Your task to perform on an android device: Open Chrome and go to the settings page Image 0: 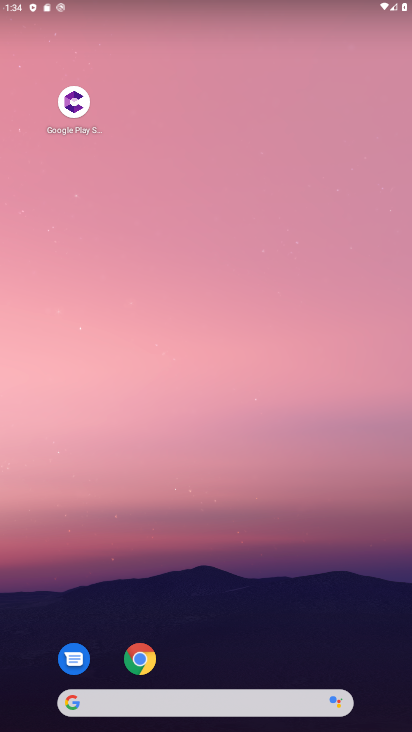
Step 0: click (138, 652)
Your task to perform on an android device: Open Chrome and go to the settings page Image 1: 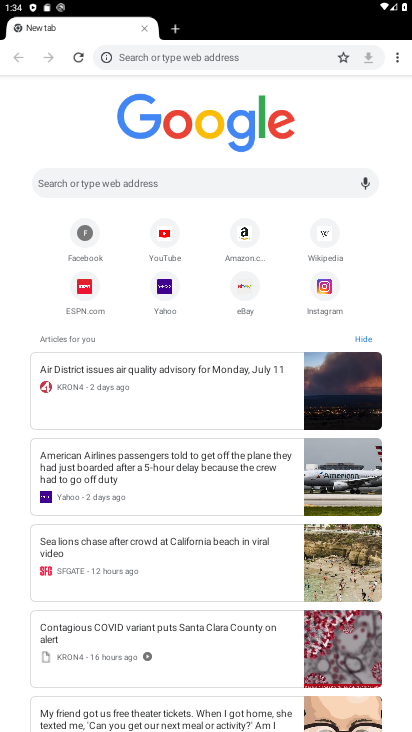
Step 1: click (394, 57)
Your task to perform on an android device: Open Chrome and go to the settings page Image 2: 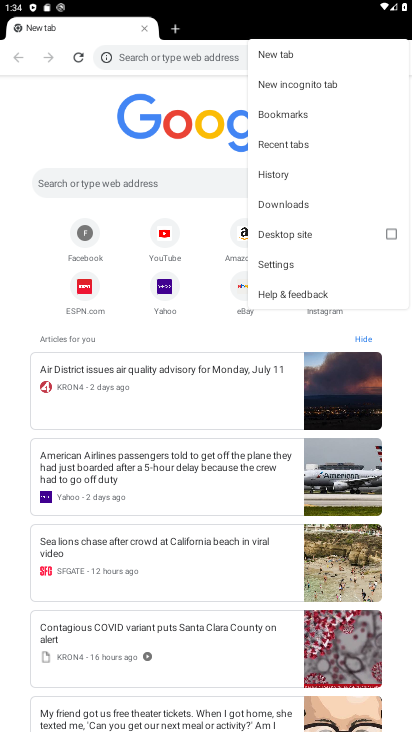
Step 2: click (267, 260)
Your task to perform on an android device: Open Chrome and go to the settings page Image 3: 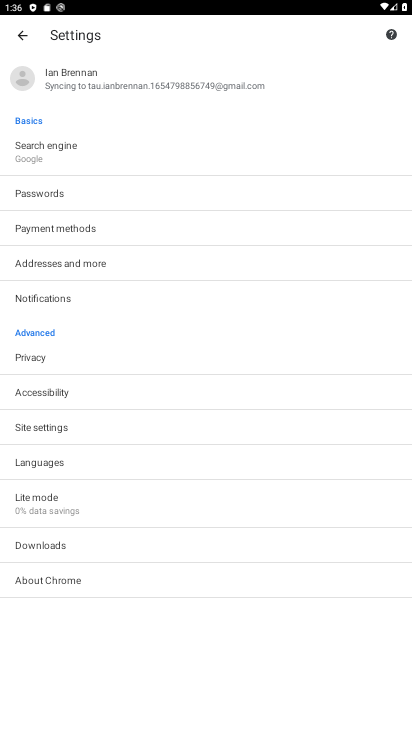
Step 3: task complete